Your task to perform on an android device: Go to Amazon Image 0: 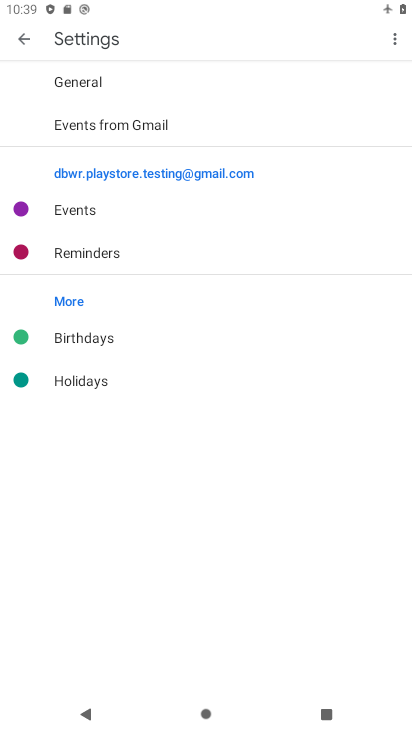
Step 0: press home button
Your task to perform on an android device: Go to Amazon Image 1: 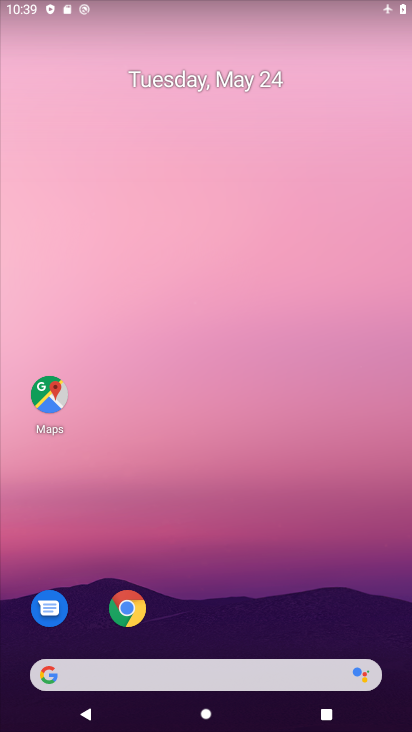
Step 1: click (127, 609)
Your task to perform on an android device: Go to Amazon Image 2: 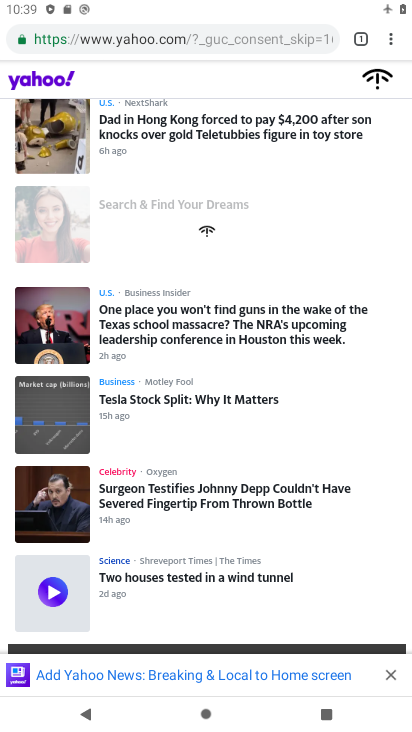
Step 2: click (225, 41)
Your task to perform on an android device: Go to Amazon Image 3: 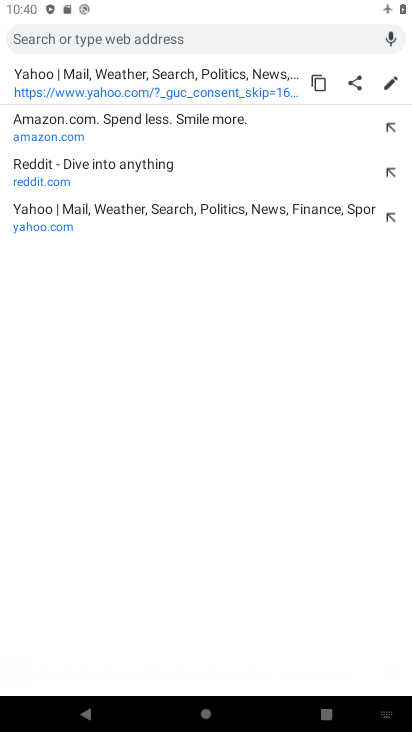
Step 3: type "amazon"
Your task to perform on an android device: Go to Amazon Image 4: 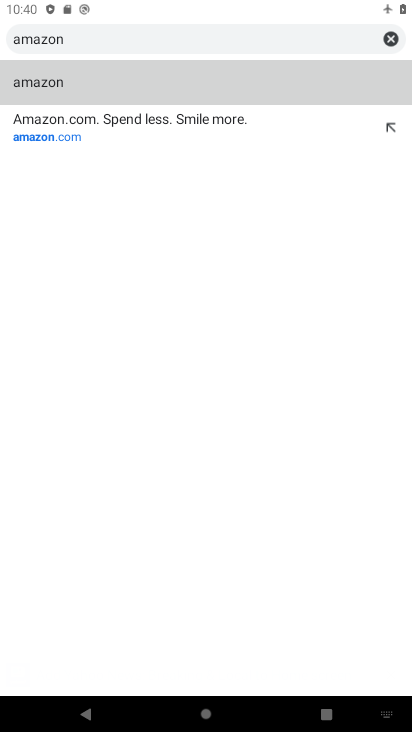
Step 4: click (44, 78)
Your task to perform on an android device: Go to Amazon Image 5: 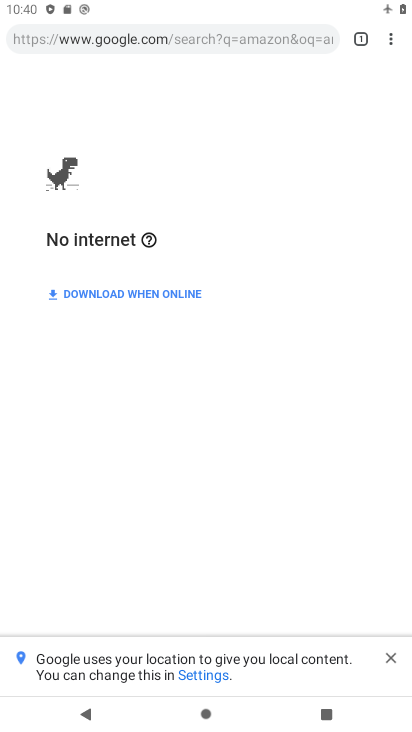
Step 5: task complete